Your task to perform on an android device: turn on showing notifications on the lock screen Image 0: 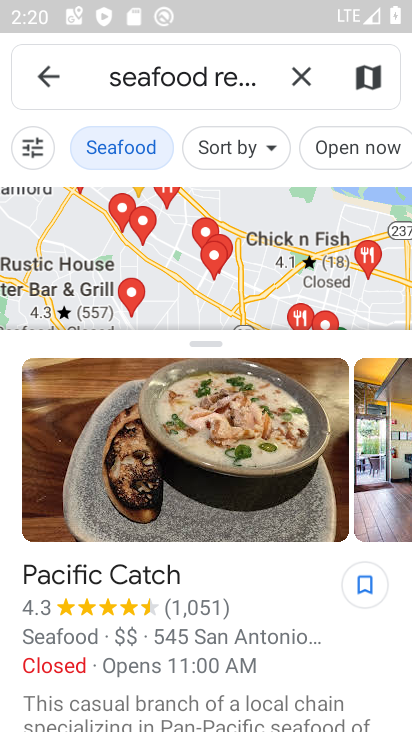
Step 0: press back button
Your task to perform on an android device: turn on showing notifications on the lock screen Image 1: 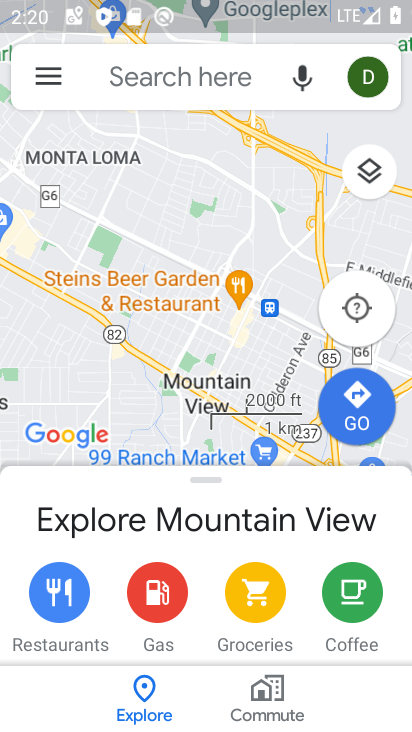
Step 1: press back button
Your task to perform on an android device: turn on showing notifications on the lock screen Image 2: 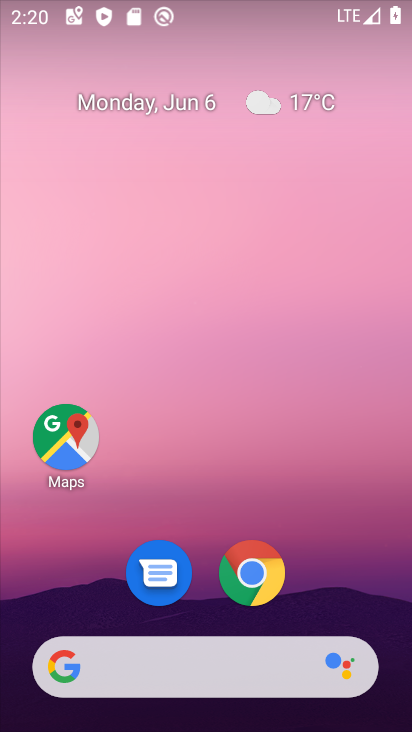
Step 2: drag from (342, 560) to (314, 189)
Your task to perform on an android device: turn on showing notifications on the lock screen Image 3: 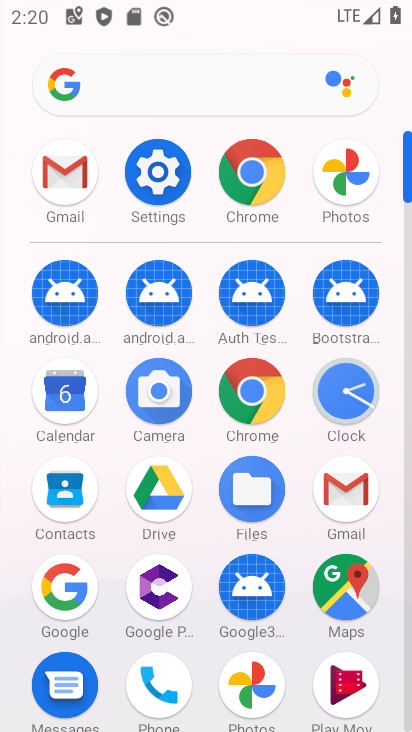
Step 3: click (173, 196)
Your task to perform on an android device: turn on showing notifications on the lock screen Image 4: 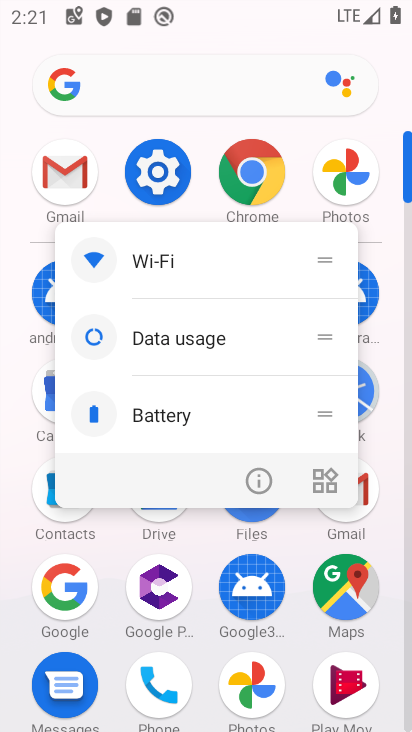
Step 4: click (170, 195)
Your task to perform on an android device: turn on showing notifications on the lock screen Image 5: 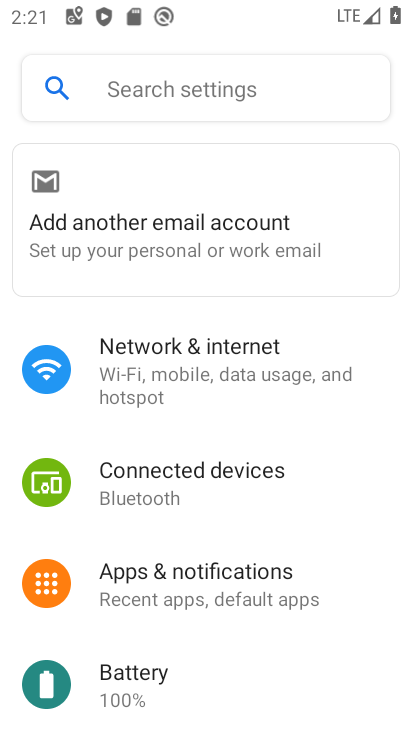
Step 5: click (178, 583)
Your task to perform on an android device: turn on showing notifications on the lock screen Image 6: 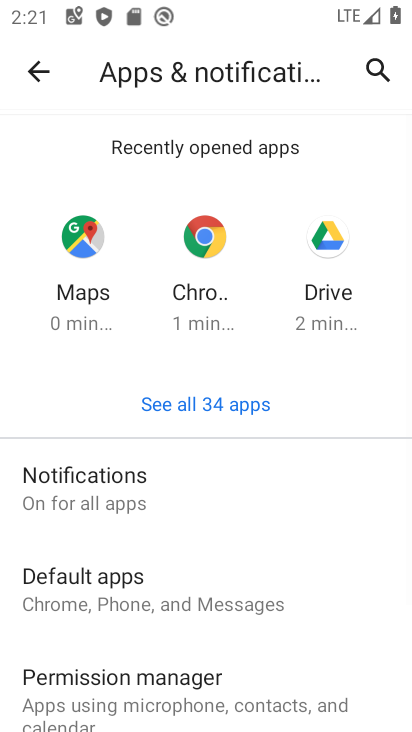
Step 6: click (133, 495)
Your task to perform on an android device: turn on showing notifications on the lock screen Image 7: 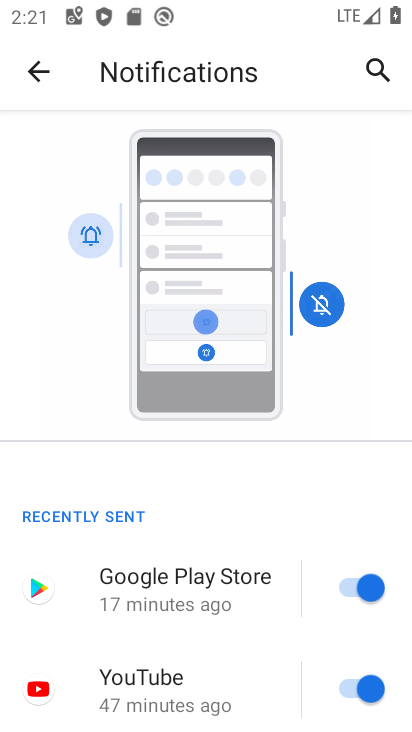
Step 7: drag from (243, 494) to (249, 352)
Your task to perform on an android device: turn on showing notifications on the lock screen Image 8: 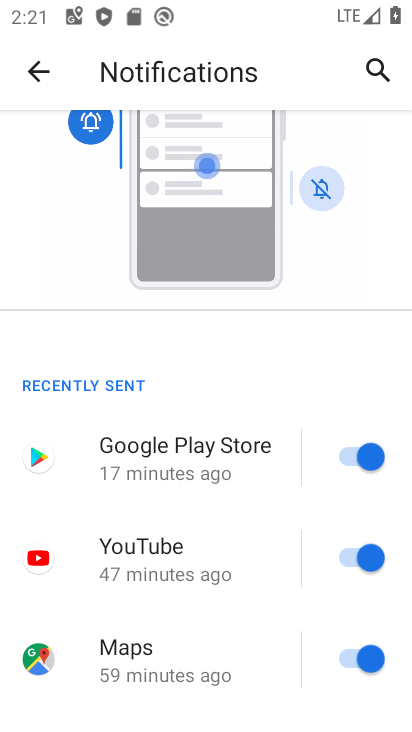
Step 8: drag from (257, 525) to (264, 387)
Your task to perform on an android device: turn on showing notifications on the lock screen Image 9: 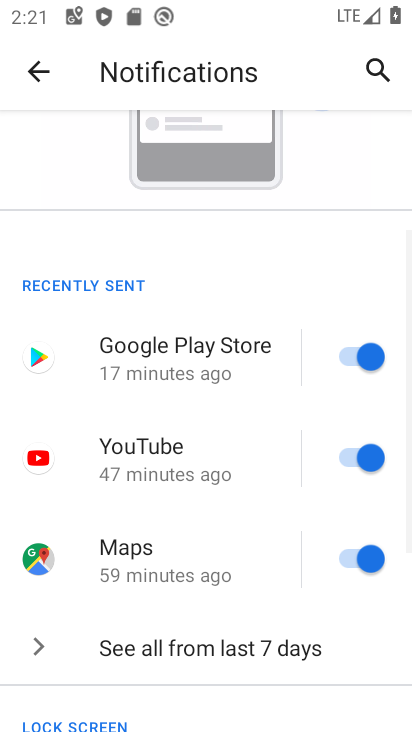
Step 9: drag from (258, 542) to (259, 351)
Your task to perform on an android device: turn on showing notifications on the lock screen Image 10: 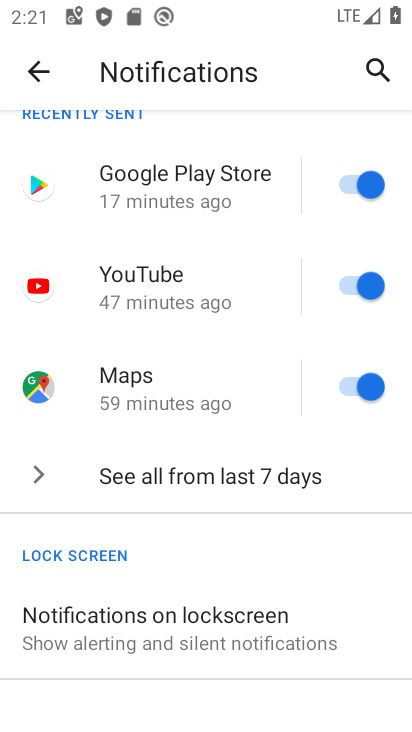
Step 10: drag from (224, 528) to (244, 344)
Your task to perform on an android device: turn on showing notifications on the lock screen Image 11: 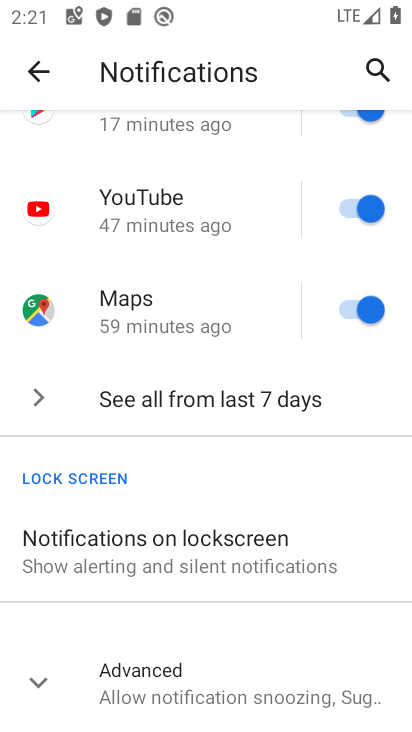
Step 11: click (226, 534)
Your task to perform on an android device: turn on showing notifications on the lock screen Image 12: 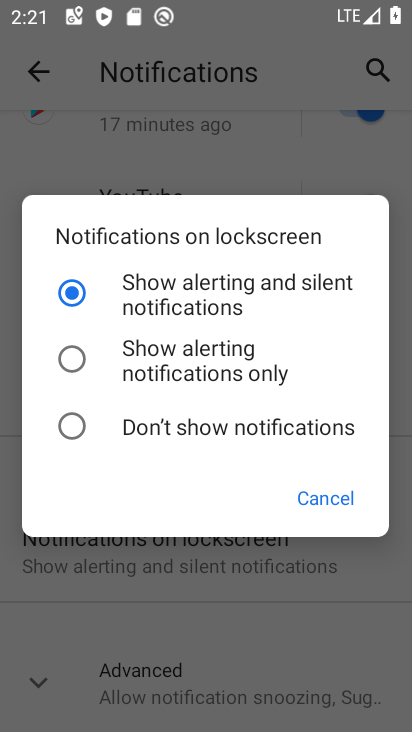
Step 12: task complete